Your task to perform on an android device: check the backup settings in the google photos Image 0: 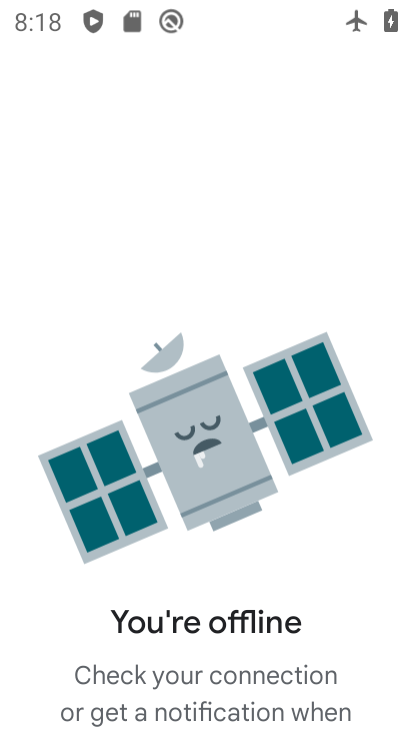
Step 0: press home button
Your task to perform on an android device: check the backup settings in the google photos Image 1: 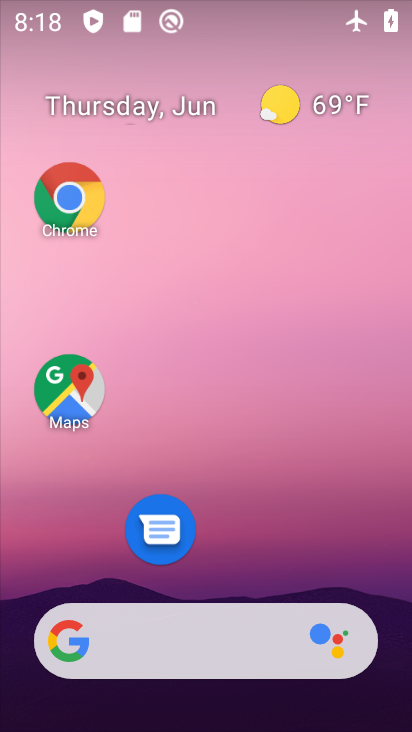
Step 1: drag from (233, 600) to (271, 79)
Your task to perform on an android device: check the backup settings in the google photos Image 2: 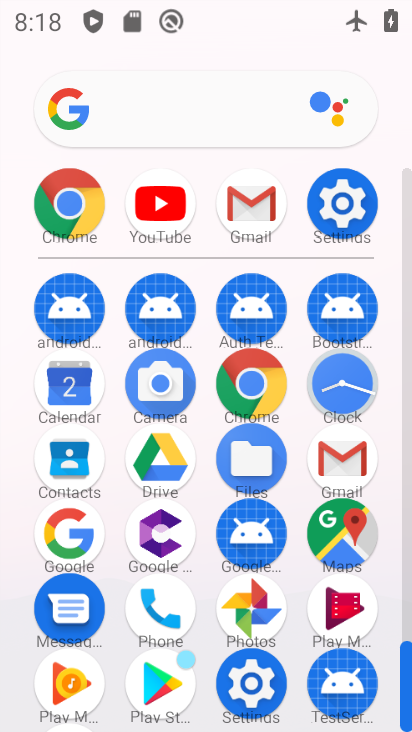
Step 2: click (254, 617)
Your task to perform on an android device: check the backup settings in the google photos Image 3: 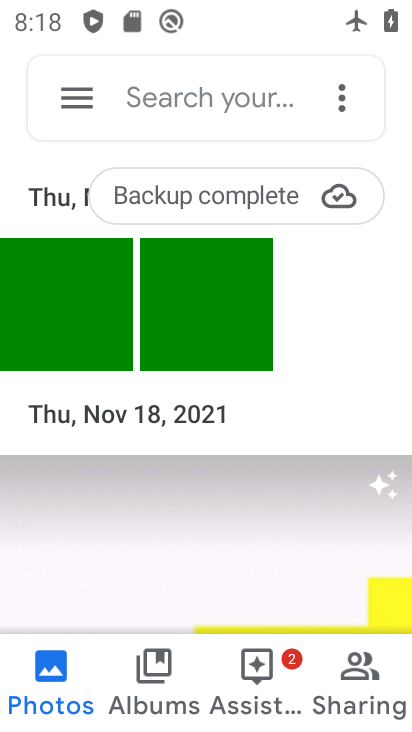
Step 3: click (78, 115)
Your task to perform on an android device: check the backup settings in the google photos Image 4: 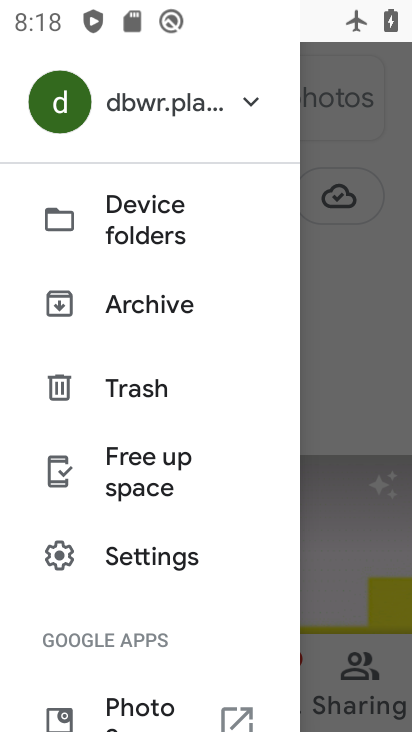
Step 4: click (191, 574)
Your task to perform on an android device: check the backup settings in the google photos Image 5: 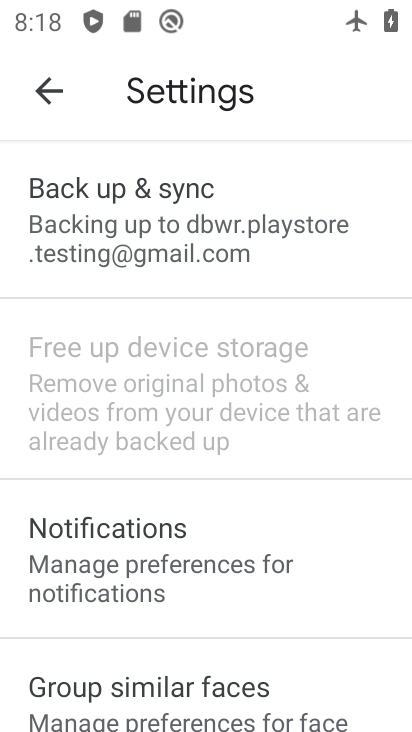
Step 5: click (114, 203)
Your task to perform on an android device: check the backup settings in the google photos Image 6: 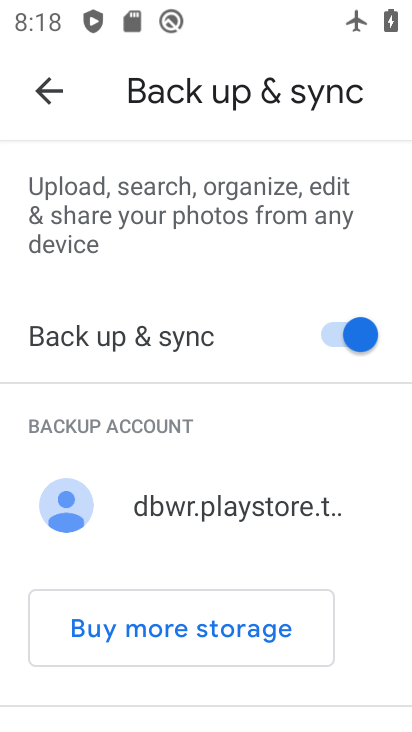
Step 6: drag from (251, 560) to (236, 184)
Your task to perform on an android device: check the backup settings in the google photos Image 7: 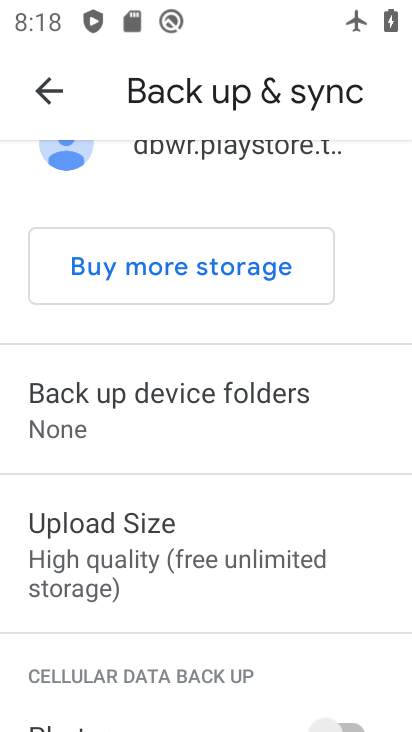
Step 7: click (133, 532)
Your task to perform on an android device: check the backup settings in the google photos Image 8: 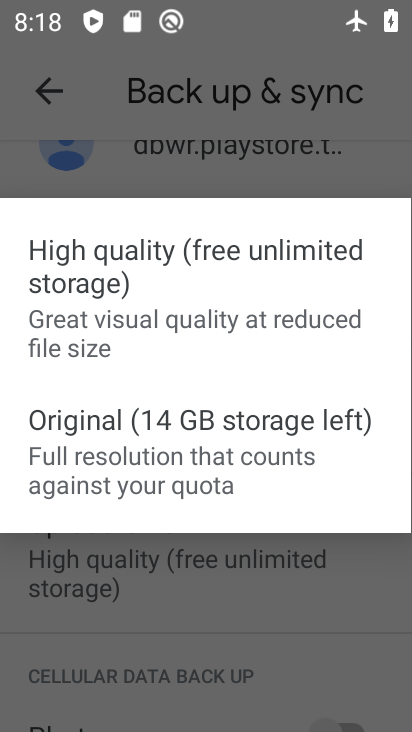
Step 8: click (274, 496)
Your task to perform on an android device: check the backup settings in the google photos Image 9: 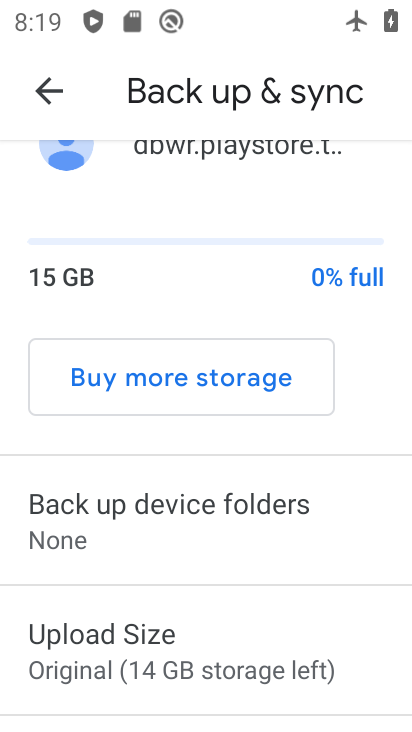
Step 9: task complete